Your task to perform on an android device: Open wifi settings Image 0: 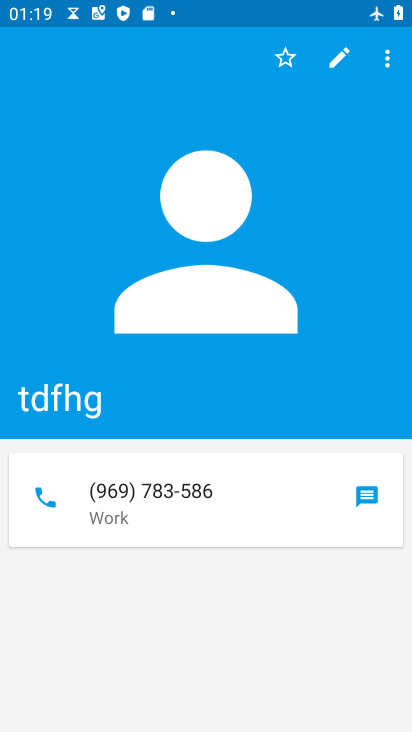
Step 0: press home button
Your task to perform on an android device: Open wifi settings Image 1: 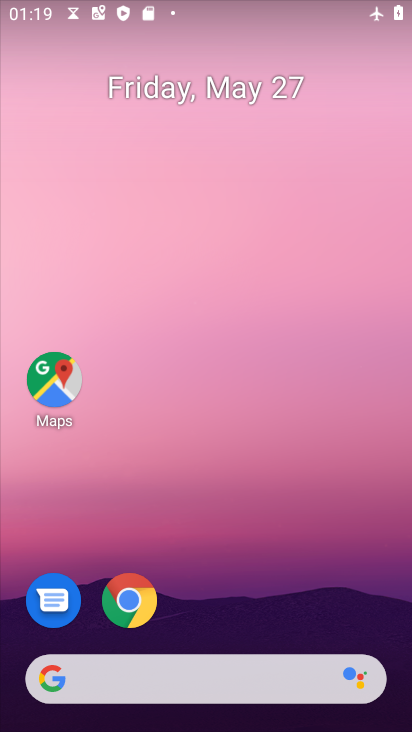
Step 1: drag from (218, 598) to (212, 165)
Your task to perform on an android device: Open wifi settings Image 2: 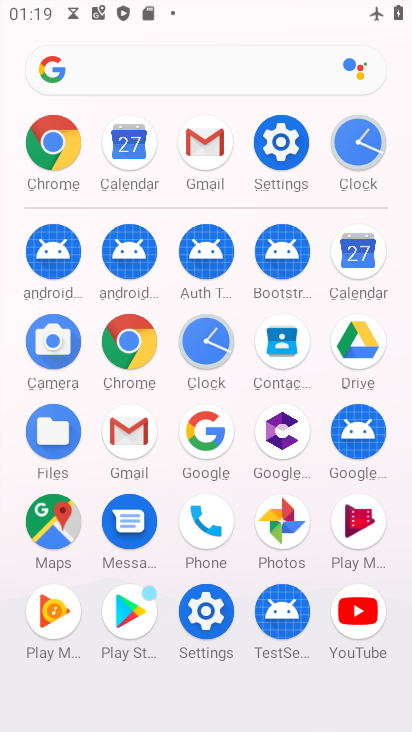
Step 2: click (277, 139)
Your task to perform on an android device: Open wifi settings Image 3: 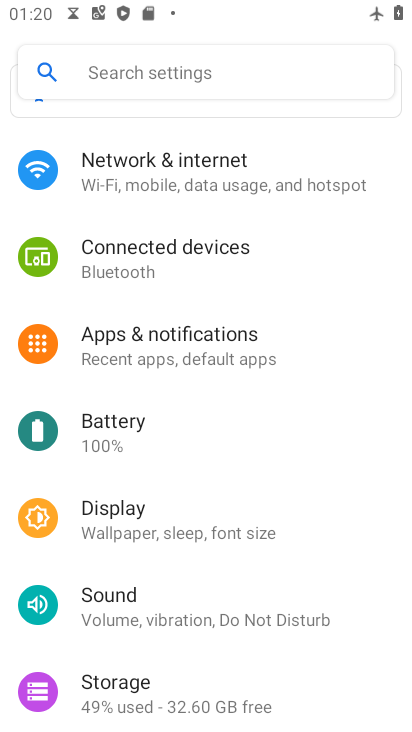
Step 3: click (251, 155)
Your task to perform on an android device: Open wifi settings Image 4: 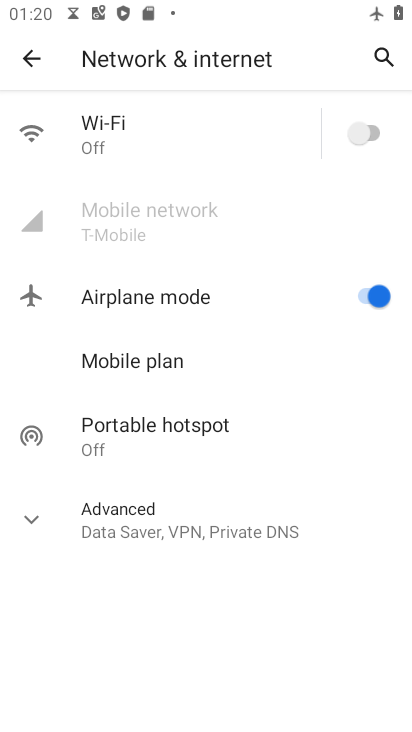
Step 4: click (363, 117)
Your task to perform on an android device: Open wifi settings Image 5: 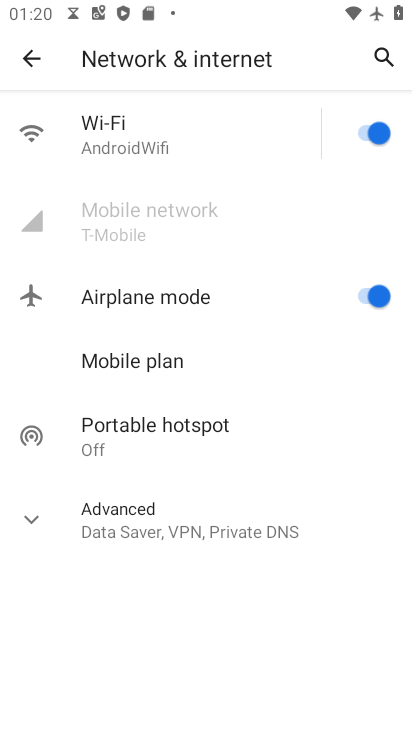
Step 5: task complete